Your task to perform on an android device: open wifi settings Image 0: 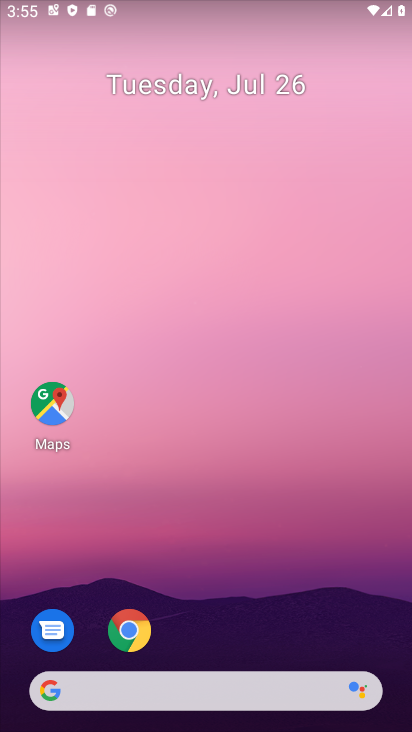
Step 0: drag from (212, 648) to (99, 114)
Your task to perform on an android device: open wifi settings Image 1: 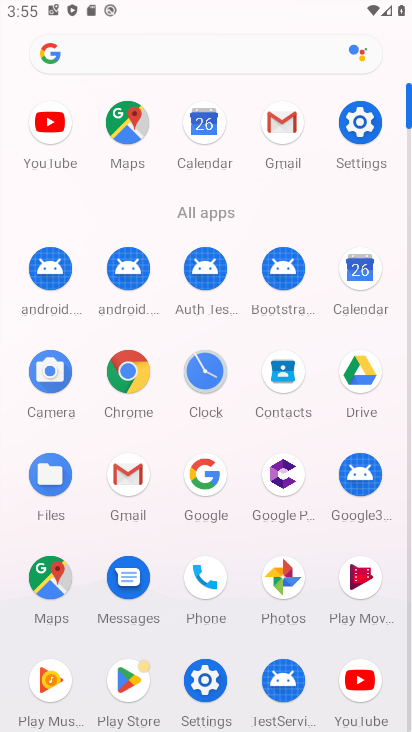
Step 1: click (335, 121)
Your task to perform on an android device: open wifi settings Image 2: 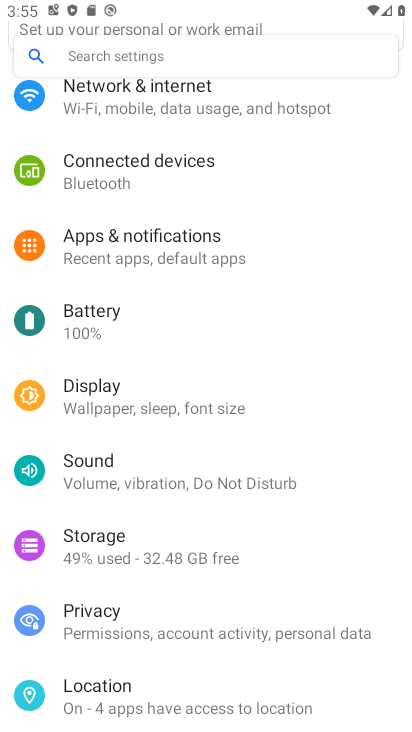
Step 2: click (245, 107)
Your task to perform on an android device: open wifi settings Image 3: 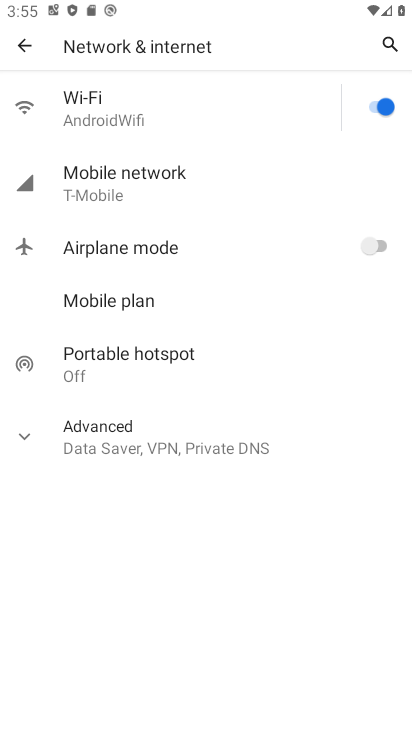
Step 3: click (214, 110)
Your task to perform on an android device: open wifi settings Image 4: 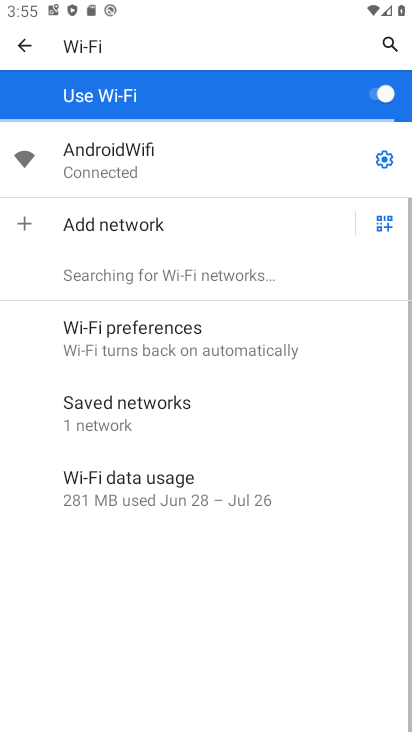
Step 4: task complete